Your task to perform on an android device: Open privacy settings Image 0: 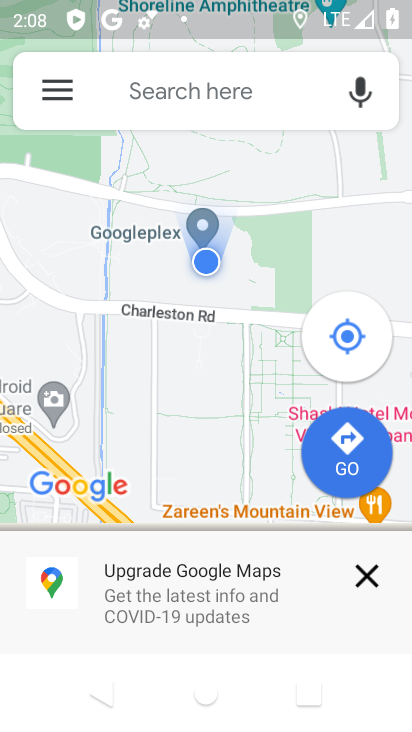
Step 0: press home button
Your task to perform on an android device: Open privacy settings Image 1: 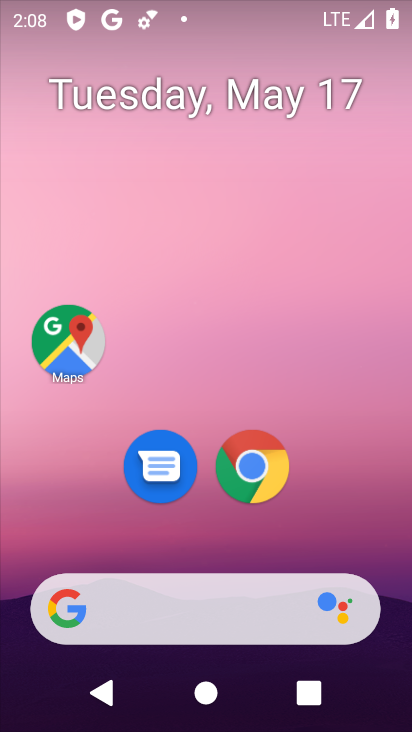
Step 1: drag from (330, 519) to (341, 15)
Your task to perform on an android device: Open privacy settings Image 2: 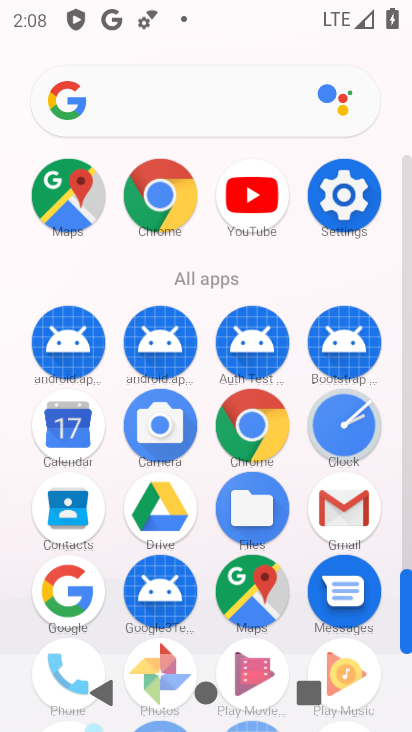
Step 2: click (361, 180)
Your task to perform on an android device: Open privacy settings Image 3: 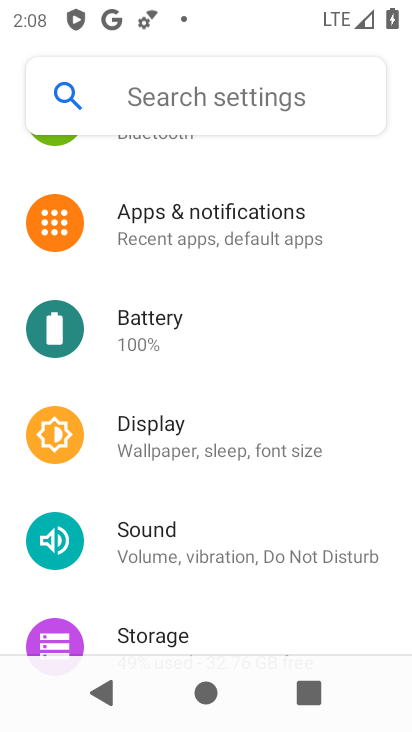
Step 3: drag from (261, 661) to (287, 180)
Your task to perform on an android device: Open privacy settings Image 4: 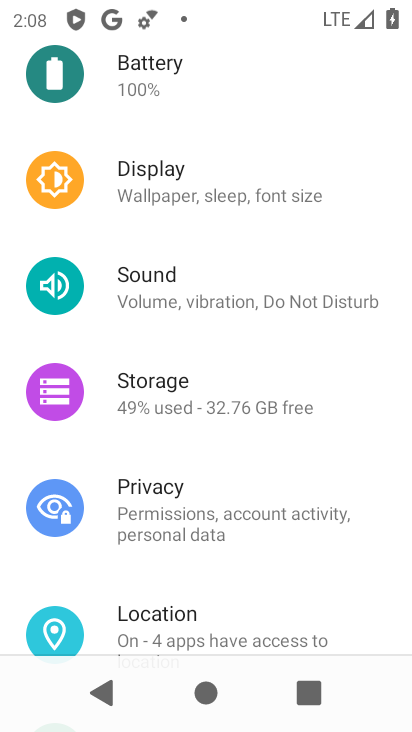
Step 4: click (131, 523)
Your task to perform on an android device: Open privacy settings Image 5: 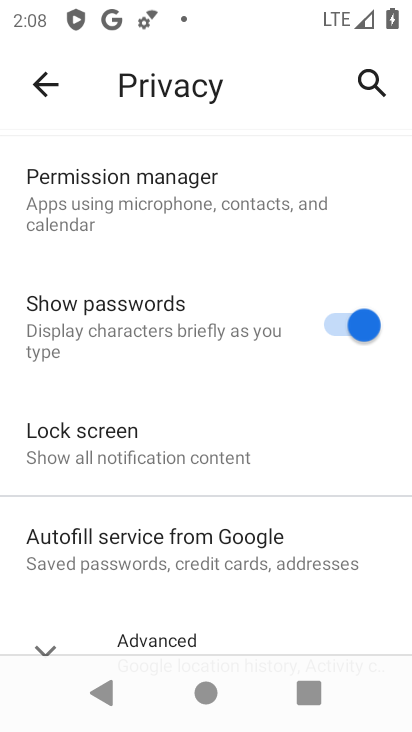
Step 5: task complete